Your task to perform on an android device: change the clock style Image 0: 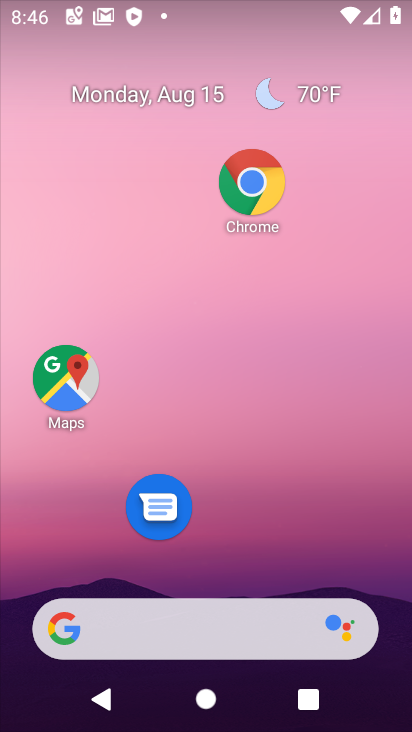
Step 0: drag from (275, 570) to (331, 15)
Your task to perform on an android device: change the clock style Image 1: 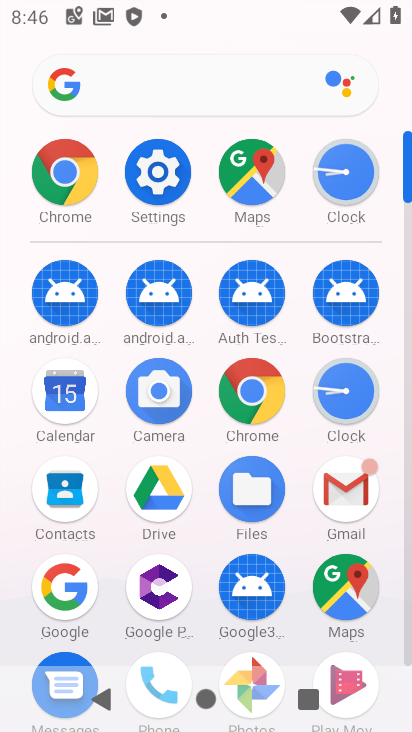
Step 1: click (325, 171)
Your task to perform on an android device: change the clock style Image 2: 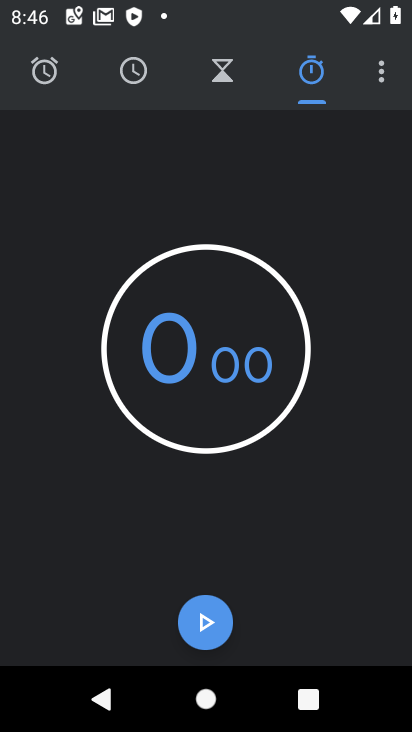
Step 2: task complete